Your task to perform on an android device: change notifications settings Image 0: 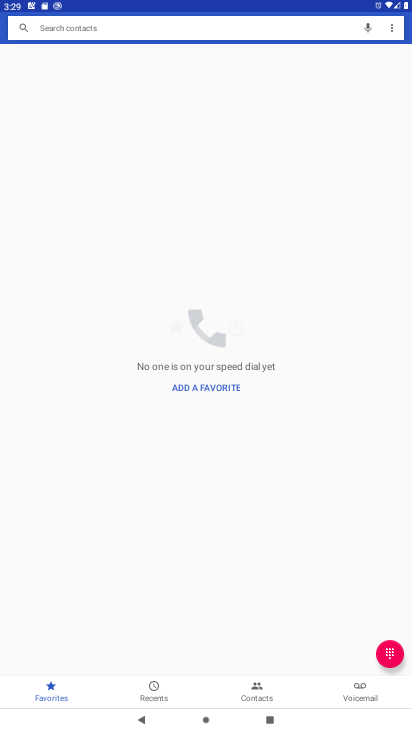
Step 0: press back button
Your task to perform on an android device: change notifications settings Image 1: 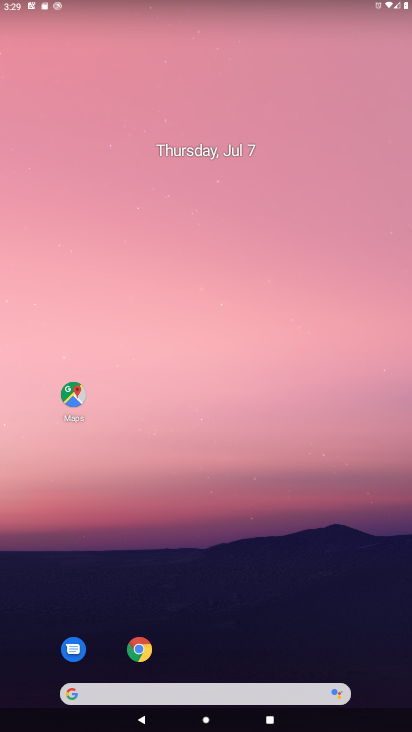
Step 1: drag from (239, 666) to (297, 124)
Your task to perform on an android device: change notifications settings Image 2: 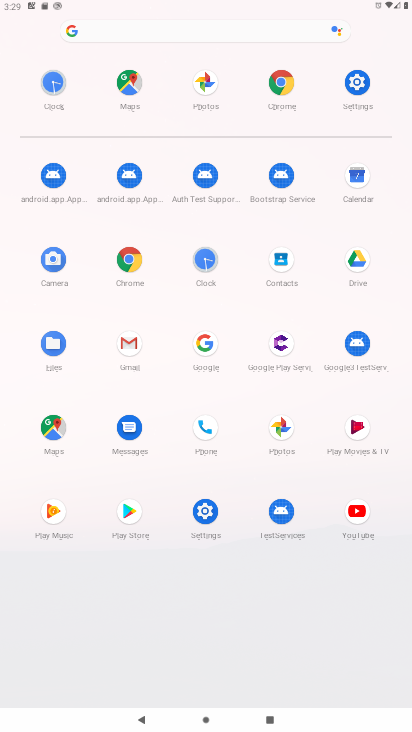
Step 2: click (359, 86)
Your task to perform on an android device: change notifications settings Image 3: 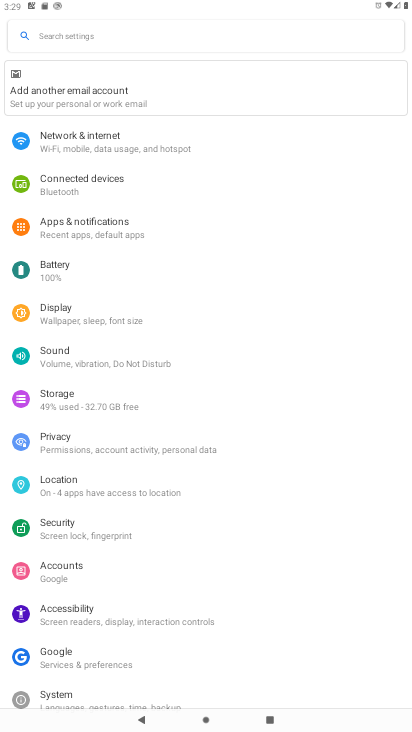
Step 3: click (110, 223)
Your task to perform on an android device: change notifications settings Image 4: 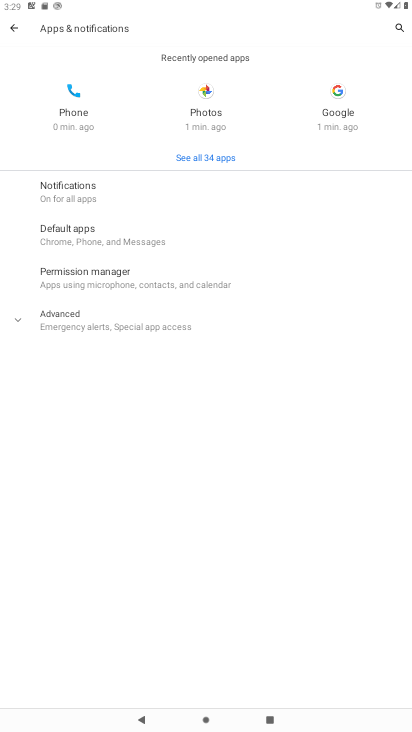
Step 4: click (125, 180)
Your task to perform on an android device: change notifications settings Image 5: 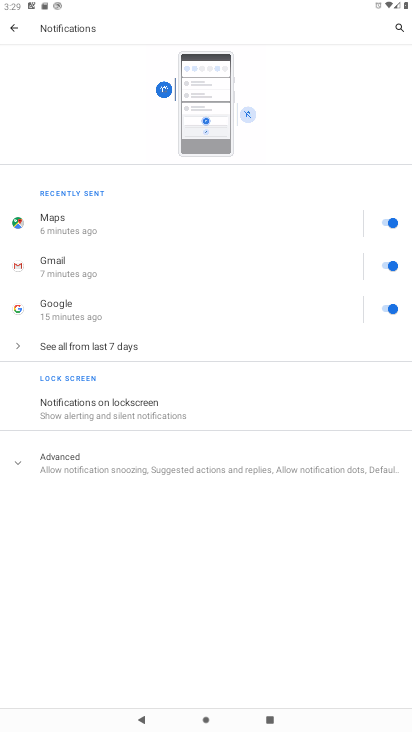
Step 5: click (114, 464)
Your task to perform on an android device: change notifications settings Image 6: 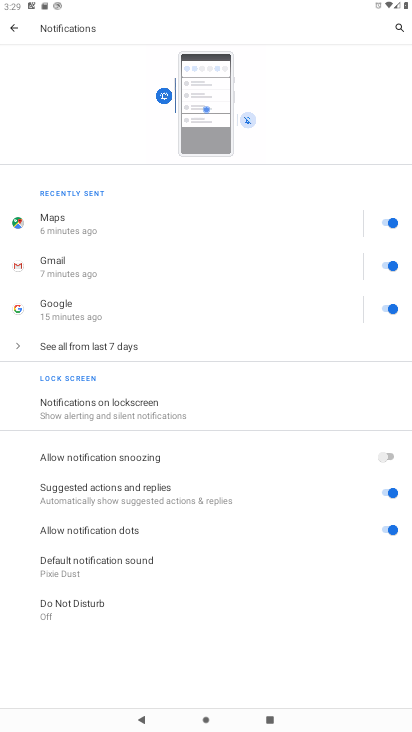
Step 6: click (396, 456)
Your task to perform on an android device: change notifications settings Image 7: 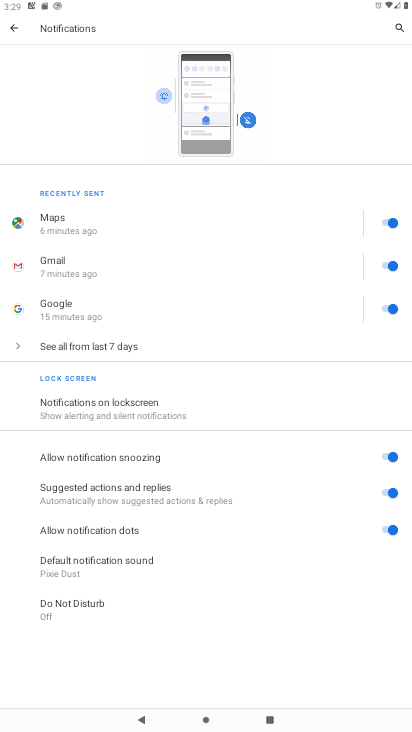
Step 7: task complete